Your task to perform on an android device: Go to Reddit.com Image 0: 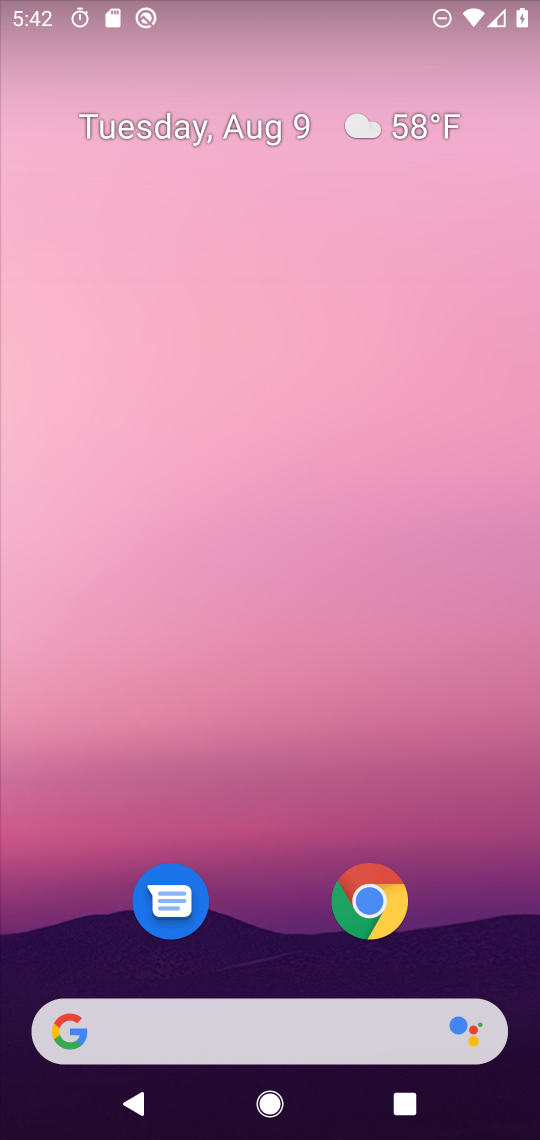
Step 0: click (370, 898)
Your task to perform on an android device: Go to Reddit.com Image 1: 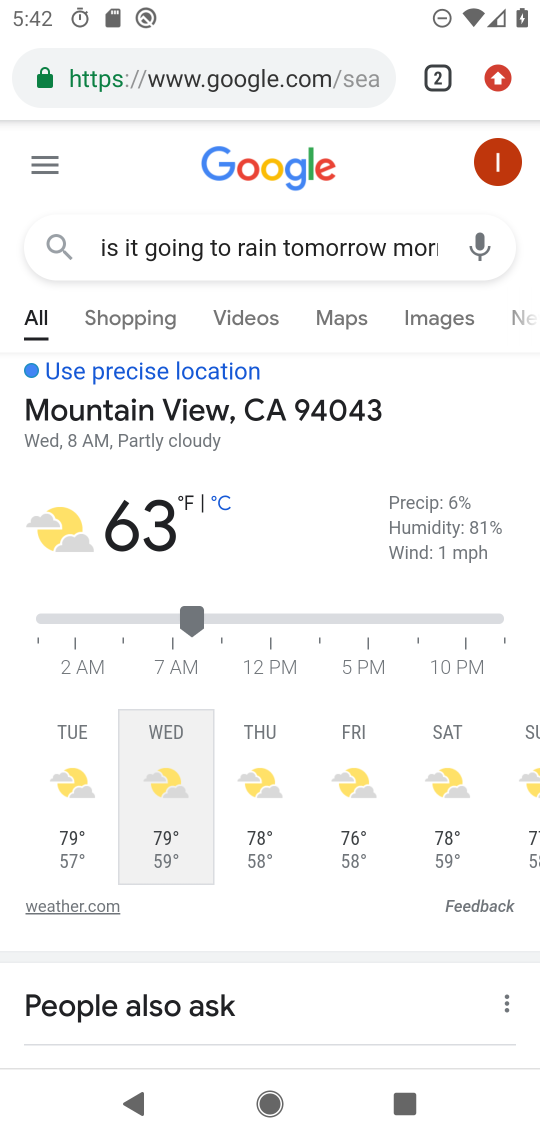
Step 1: click (241, 83)
Your task to perform on an android device: Go to Reddit.com Image 2: 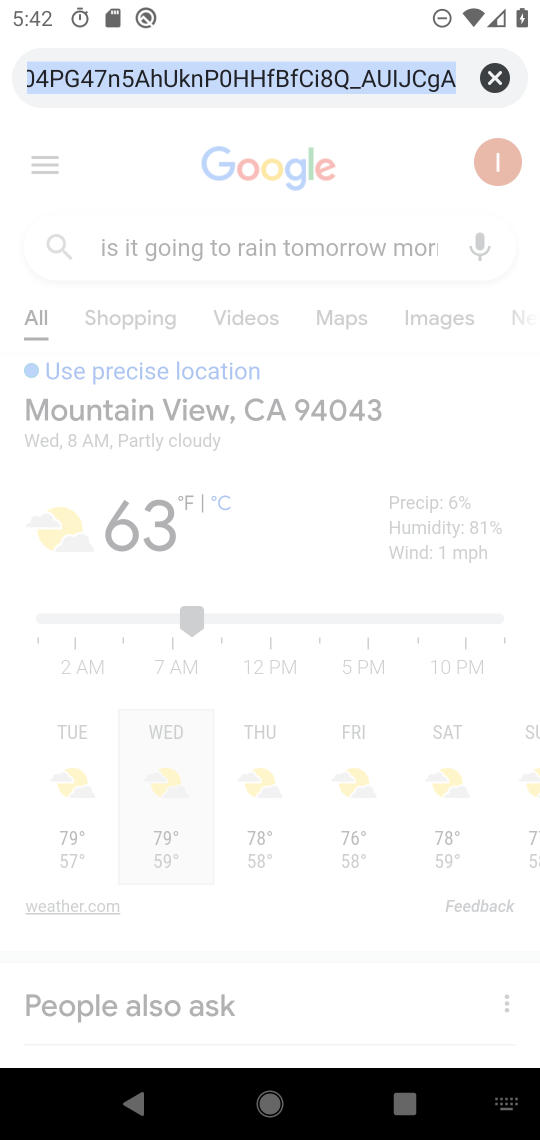
Step 2: type " Reddit.com"
Your task to perform on an android device: Go to Reddit.com Image 3: 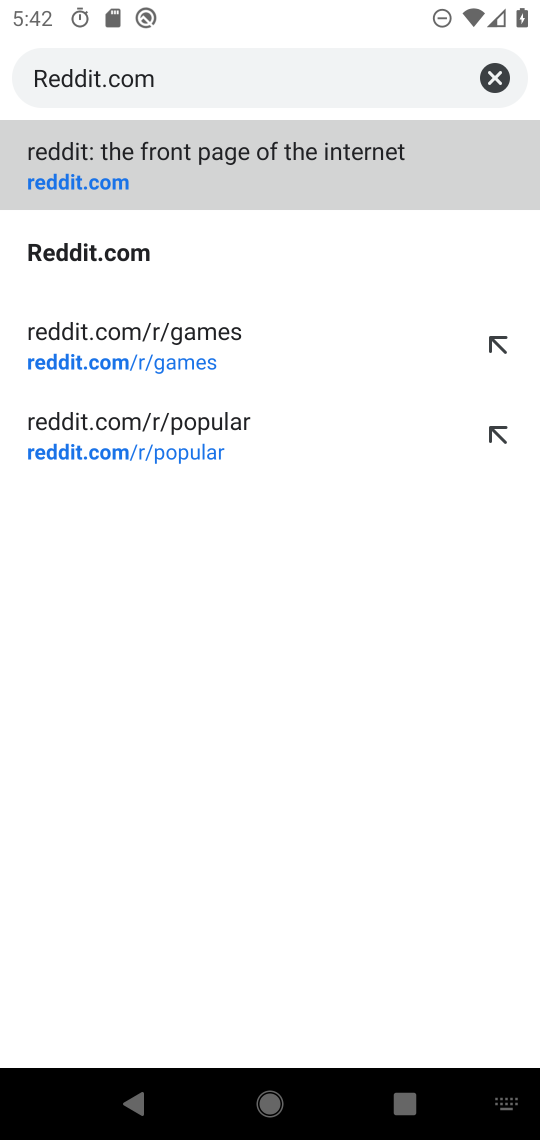
Step 3: click (107, 181)
Your task to perform on an android device: Go to Reddit.com Image 4: 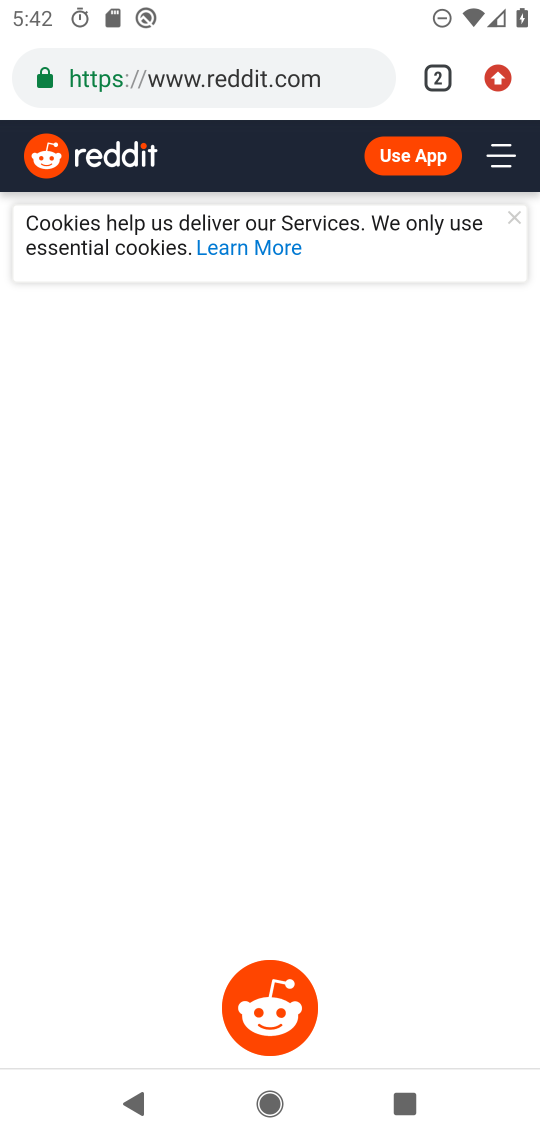
Step 4: task complete